Your task to perform on an android device: set the stopwatch Image 0: 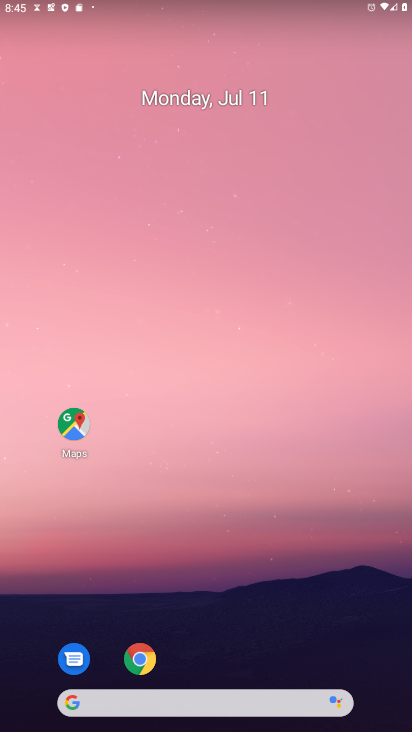
Step 0: drag from (170, 640) to (207, 181)
Your task to perform on an android device: set the stopwatch Image 1: 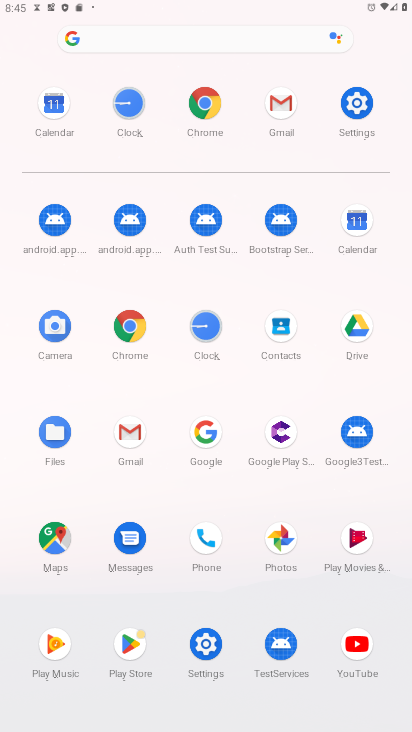
Step 1: click (214, 313)
Your task to perform on an android device: set the stopwatch Image 2: 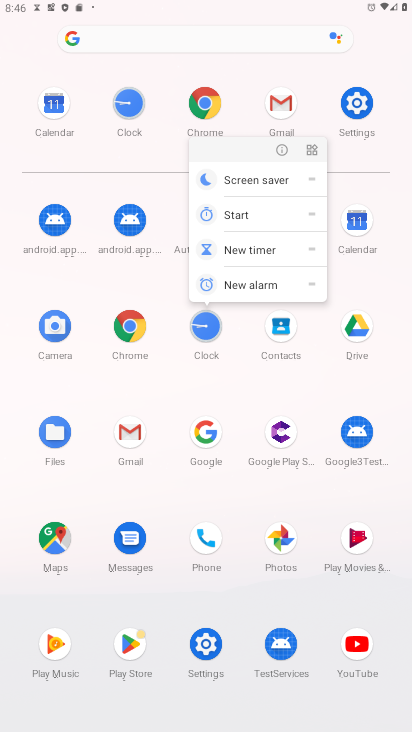
Step 2: click (271, 154)
Your task to perform on an android device: set the stopwatch Image 3: 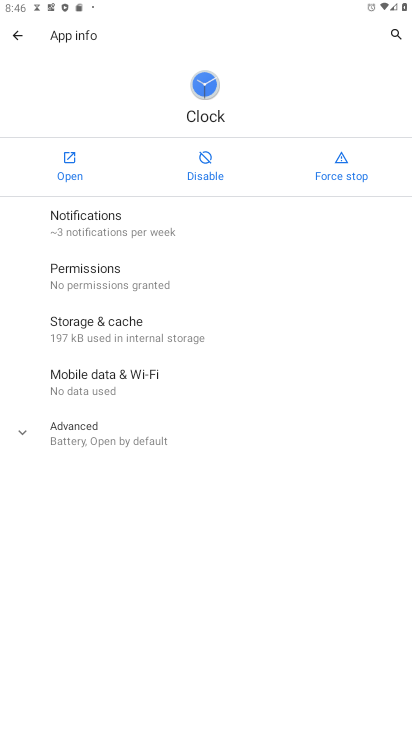
Step 3: click (72, 173)
Your task to perform on an android device: set the stopwatch Image 4: 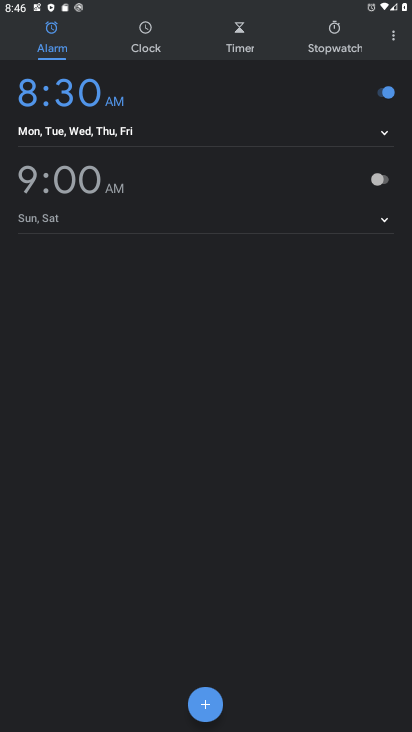
Step 4: click (335, 28)
Your task to perform on an android device: set the stopwatch Image 5: 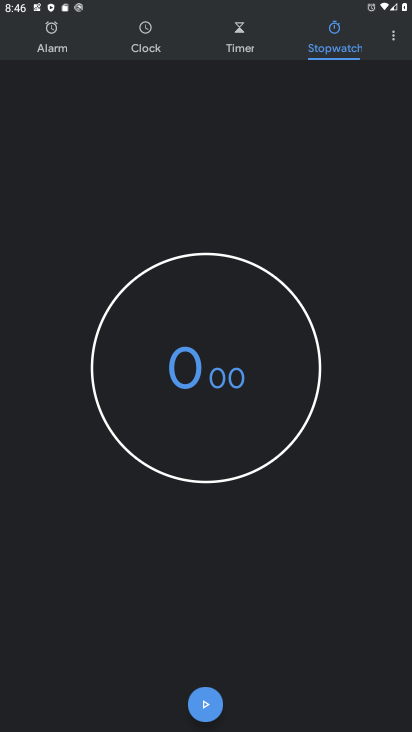
Step 5: click (200, 711)
Your task to perform on an android device: set the stopwatch Image 6: 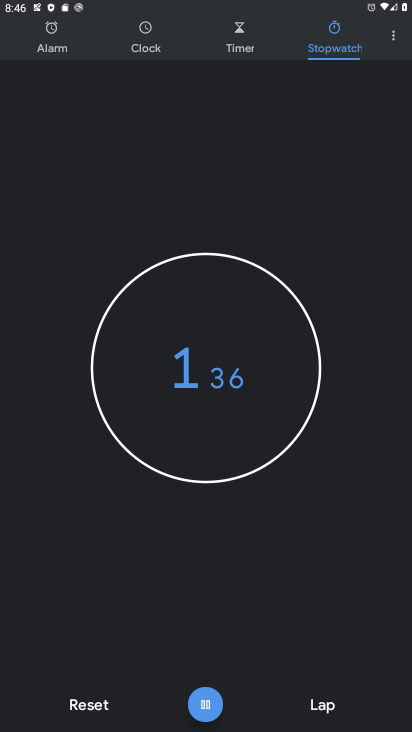
Step 6: task complete